Your task to perform on an android device: Search for "corsair k70" on target.com, select the first entry, and add it to the cart. Image 0: 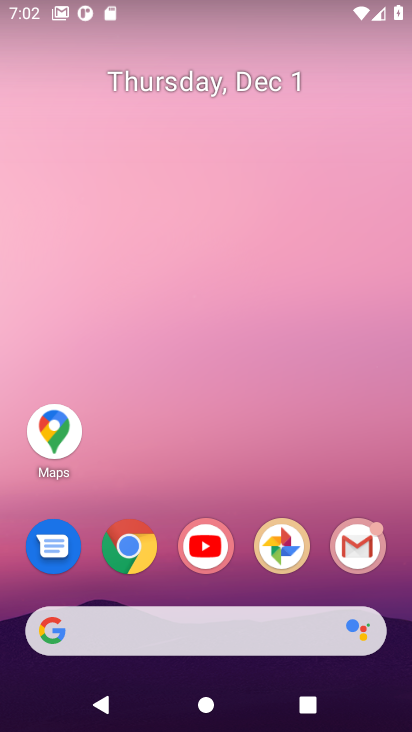
Step 0: click (130, 553)
Your task to perform on an android device: Search for "corsair k70" on target.com, select the first entry, and add it to the cart. Image 1: 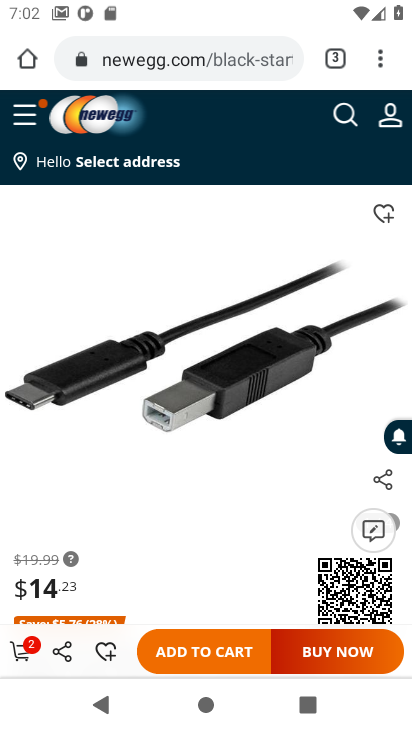
Step 1: click (161, 62)
Your task to perform on an android device: Search for "corsair k70" on target.com, select the first entry, and add it to the cart. Image 2: 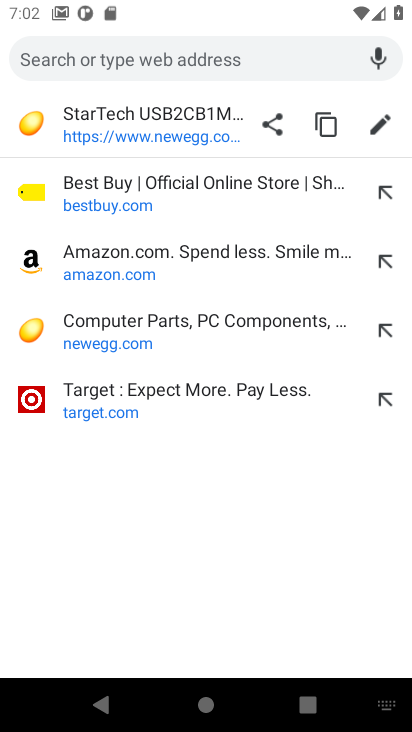
Step 2: click (92, 400)
Your task to perform on an android device: Search for "corsair k70" on target.com, select the first entry, and add it to the cart. Image 3: 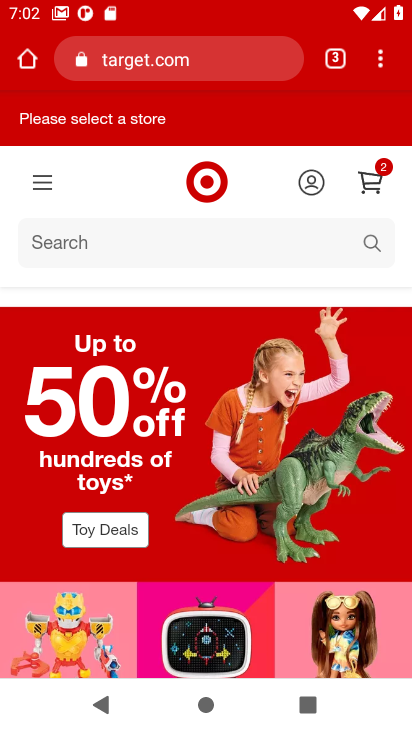
Step 3: click (49, 244)
Your task to perform on an android device: Search for "corsair k70" on target.com, select the first entry, and add it to the cart. Image 4: 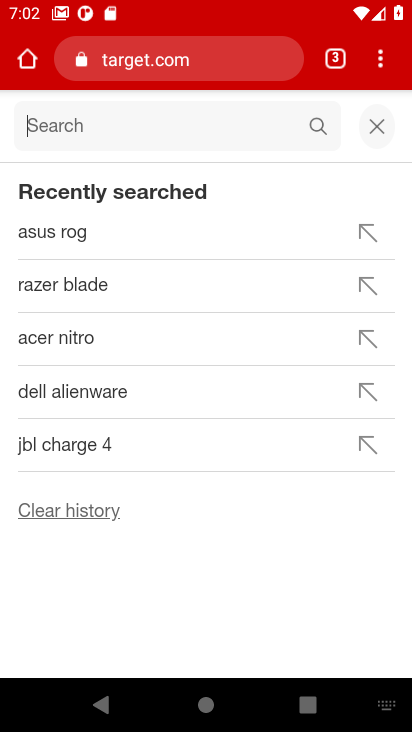
Step 4: type "corsair k70"
Your task to perform on an android device: Search for "corsair k70" on target.com, select the first entry, and add it to the cart. Image 5: 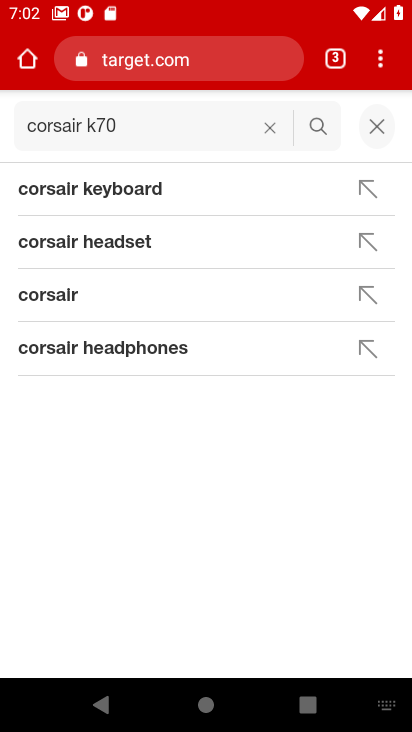
Step 5: click (317, 130)
Your task to perform on an android device: Search for "corsair k70" on target.com, select the first entry, and add it to the cart. Image 6: 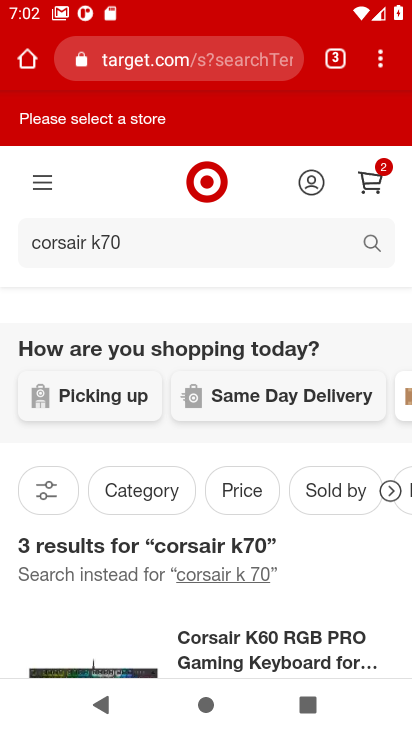
Step 6: task complete